Your task to perform on an android device: Open network settings Image 0: 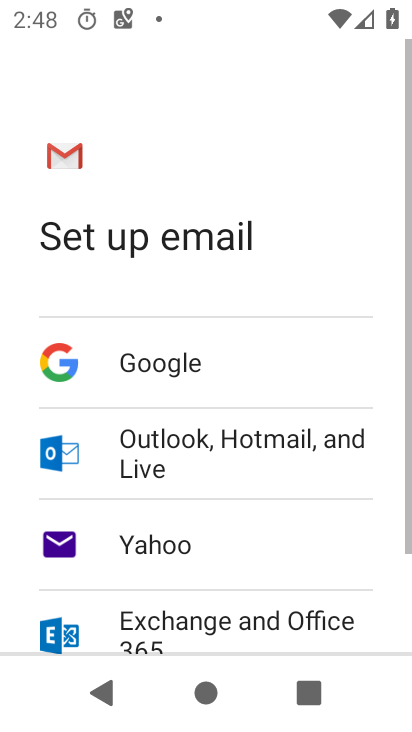
Step 0: press home button
Your task to perform on an android device: Open network settings Image 1: 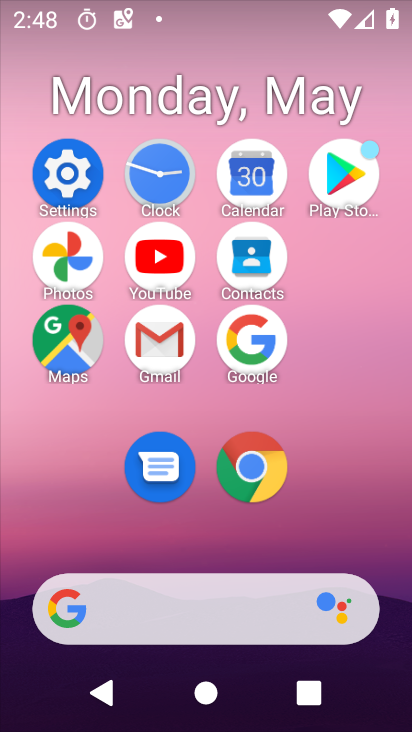
Step 1: click (42, 170)
Your task to perform on an android device: Open network settings Image 2: 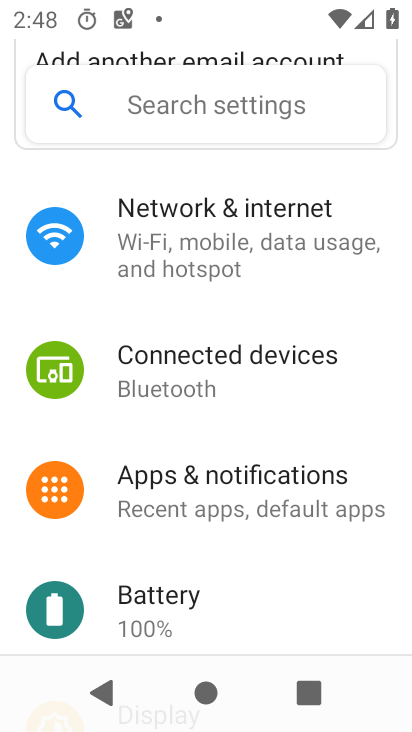
Step 2: click (273, 219)
Your task to perform on an android device: Open network settings Image 3: 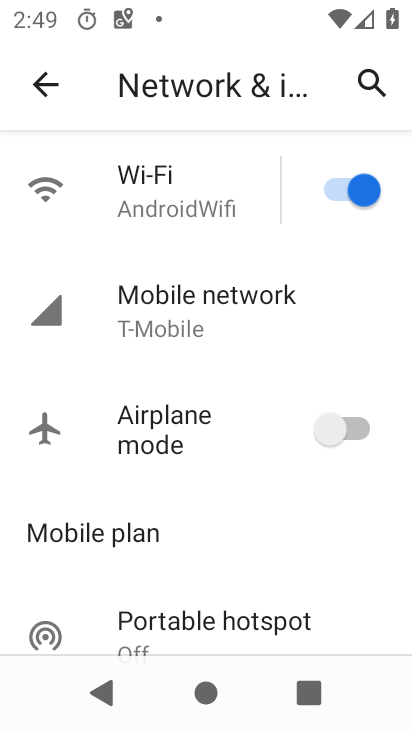
Step 3: task complete